Your task to perform on an android device: uninstall "Contacts" Image 0: 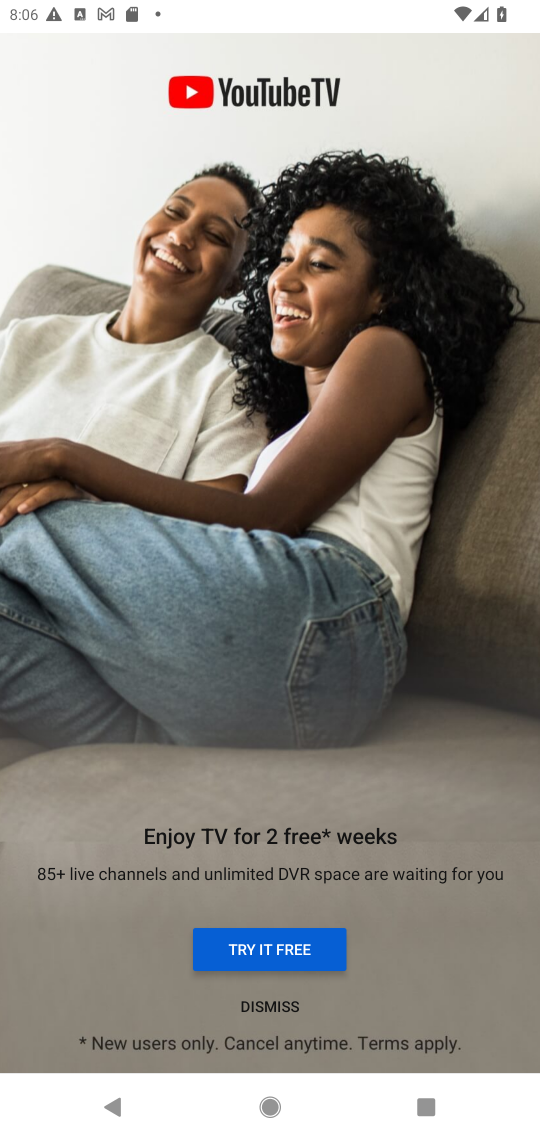
Step 0: press home button
Your task to perform on an android device: uninstall "Contacts" Image 1: 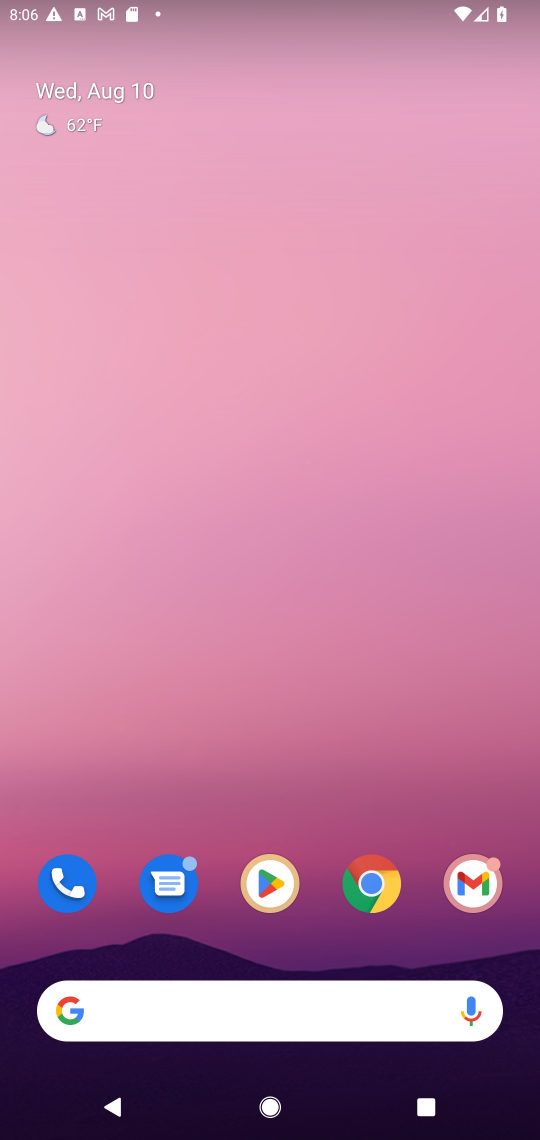
Step 1: click (266, 890)
Your task to perform on an android device: uninstall "Contacts" Image 2: 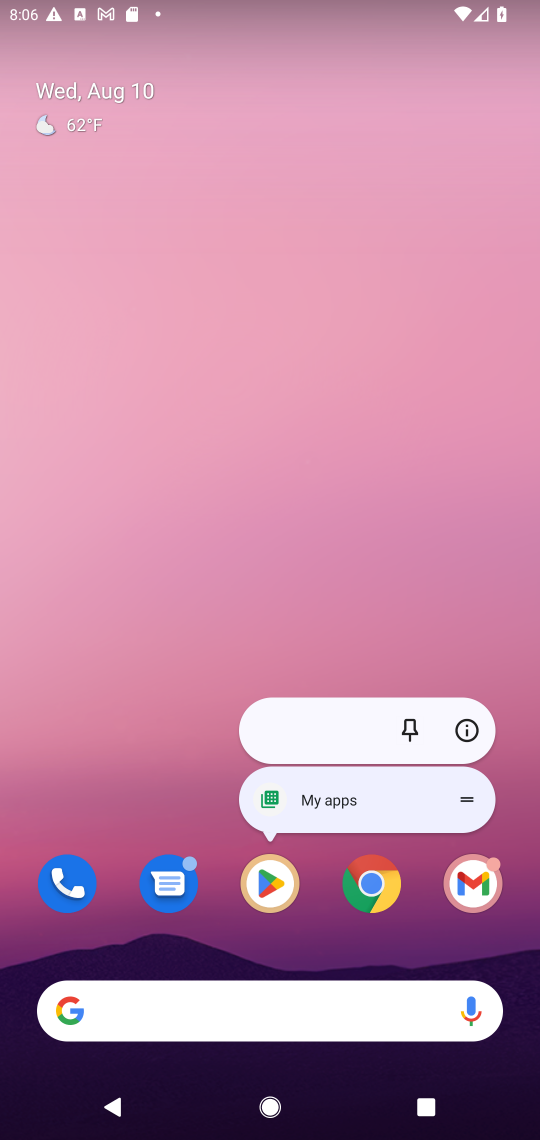
Step 2: click (274, 859)
Your task to perform on an android device: uninstall "Contacts" Image 3: 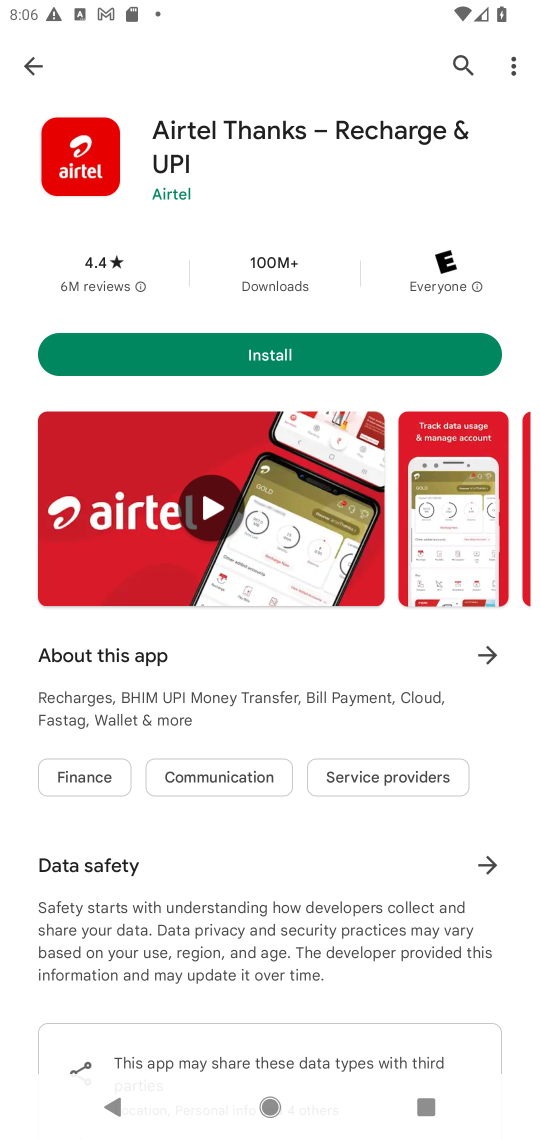
Step 3: click (453, 50)
Your task to perform on an android device: uninstall "Contacts" Image 4: 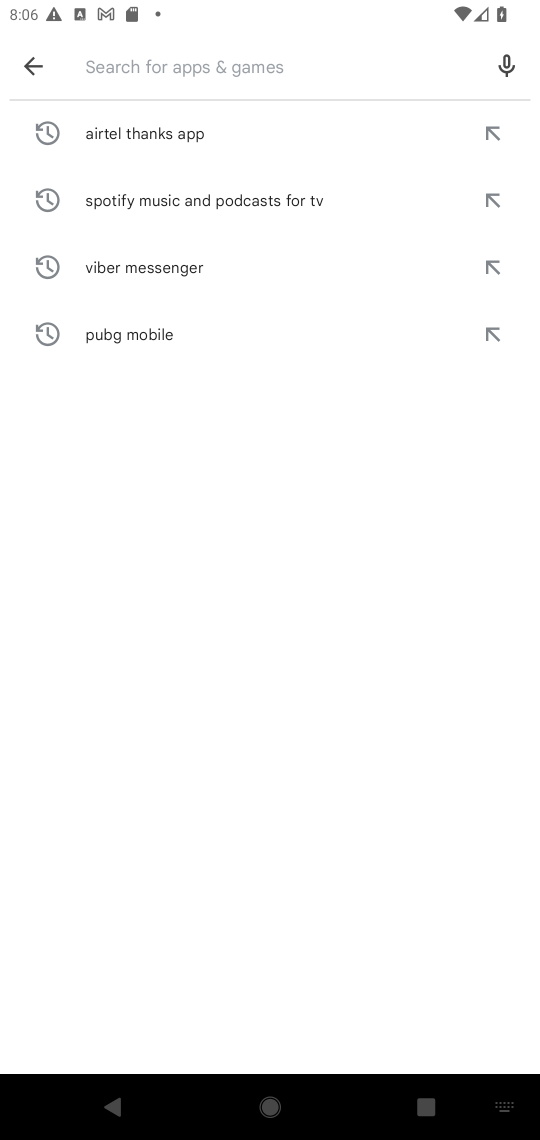
Step 4: type "Contacts"
Your task to perform on an android device: uninstall "Contacts" Image 5: 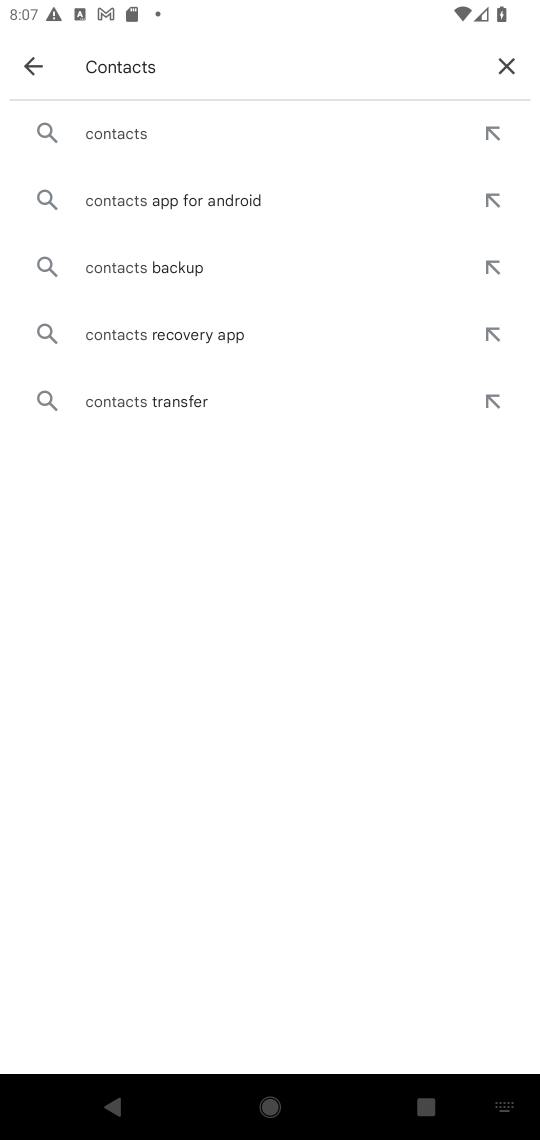
Step 5: click (150, 143)
Your task to perform on an android device: uninstall "Contacts" Image 6: 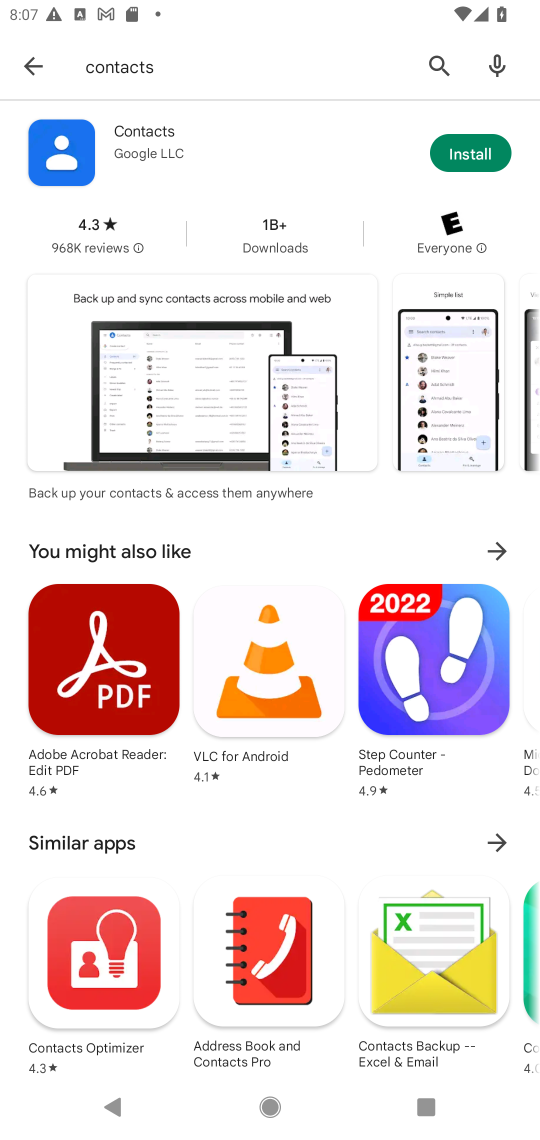
Step 6: click (145, 154)
Your task to perform on an android device: uninstall "Contacts" Image 7: 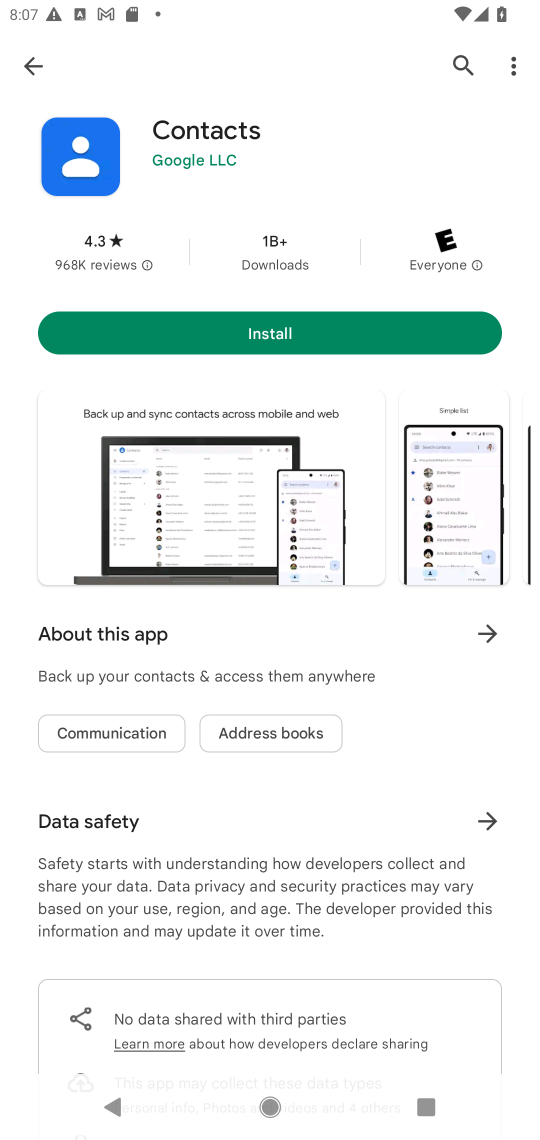
Step 7: task complete